Your task to perform on an android device: turn on sleep mode Image 0: 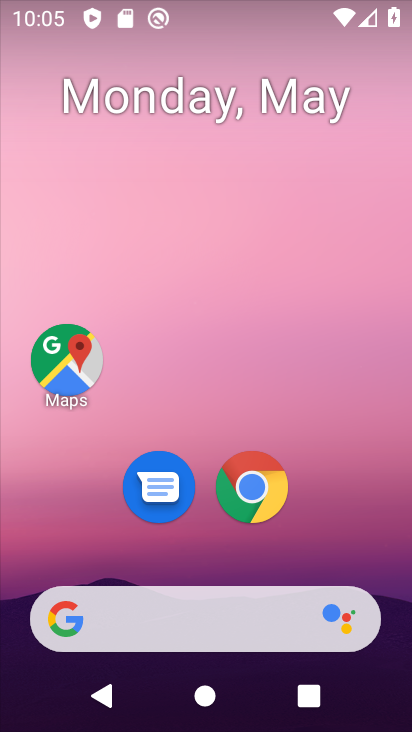
Step 0: drag from (383, 571) to (386, 216)
Your task to perform on an android device: turn on sleep mode Image 1: 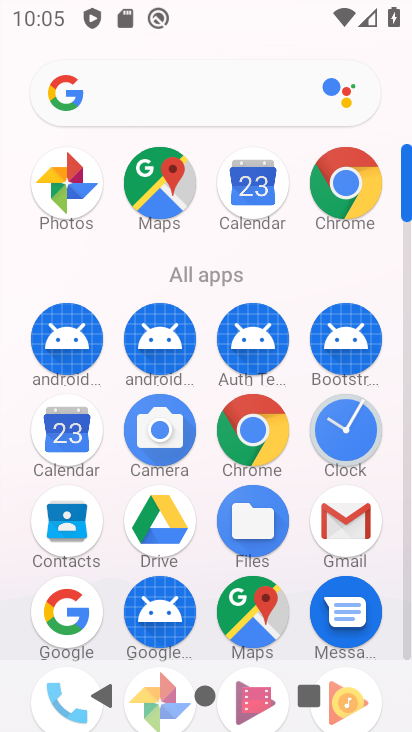
Step 1: drag from (396, 588) to (397, 488)
Your task to perform on an android device: turn on sleep mode Image 2: 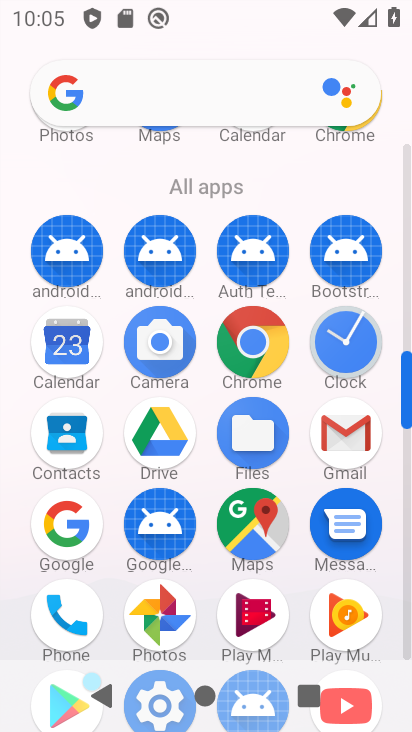
Step 2: drag from (387, 578) to (391, 483)
Your task to perform on an android device: turn on sleep mode Image 3: 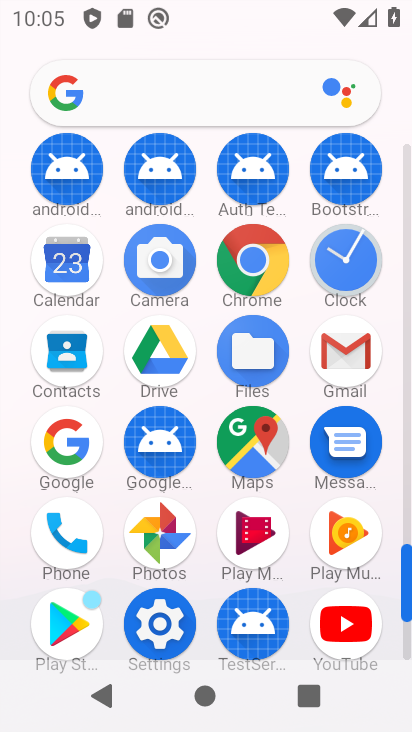
Step 3: drag from (382, 588) to (390, 483)
Your task to perform on an android device: turn on sleep mode Image 4: 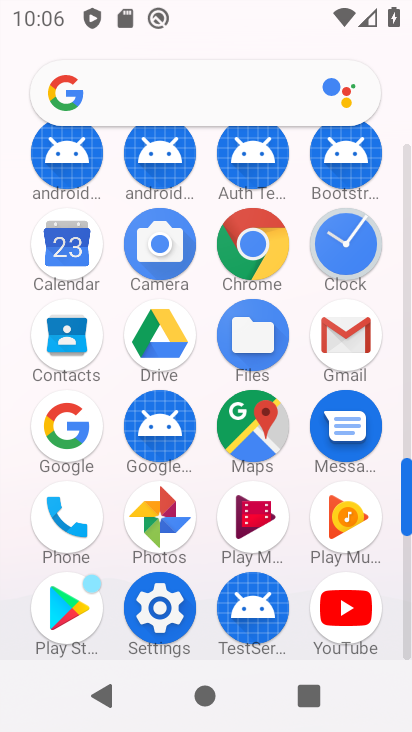
Step 4: click (153, 619)
Your task to perform on an android device: turn on sleep mode Image 5: 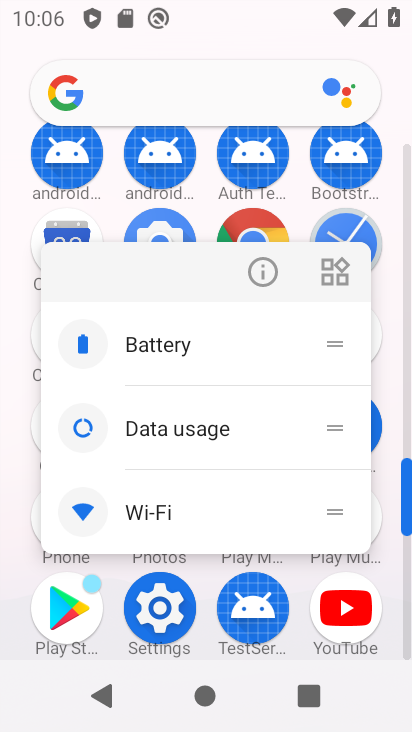
Step 5: click (153, 619)
Your task to perform on an android device: turn on sleep mode Image 6: 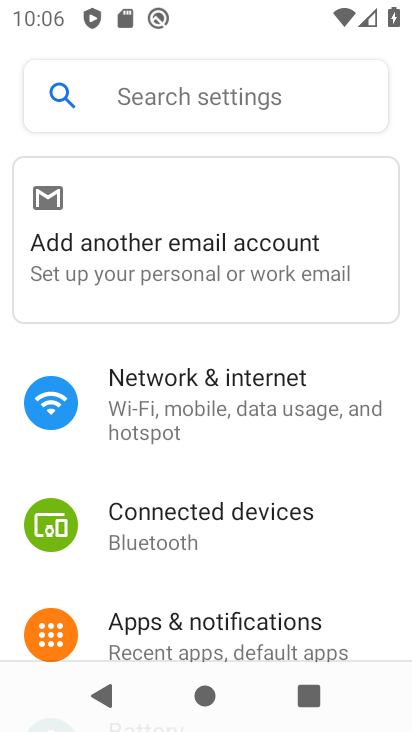
Step 6: drag from (357, 537) to (357, 455)
Your task to perform on an android device: turn on sleep mode Image 7: 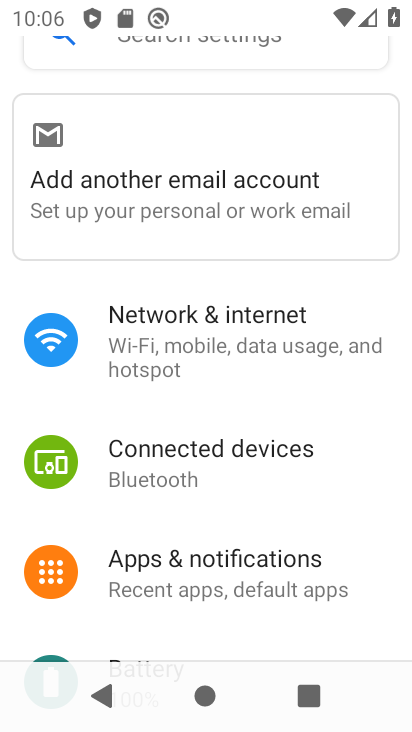
Step 7: drag from (357, 584) to (364, 491)
Your task to perform on an android device: turn on sleep mode Image 8: 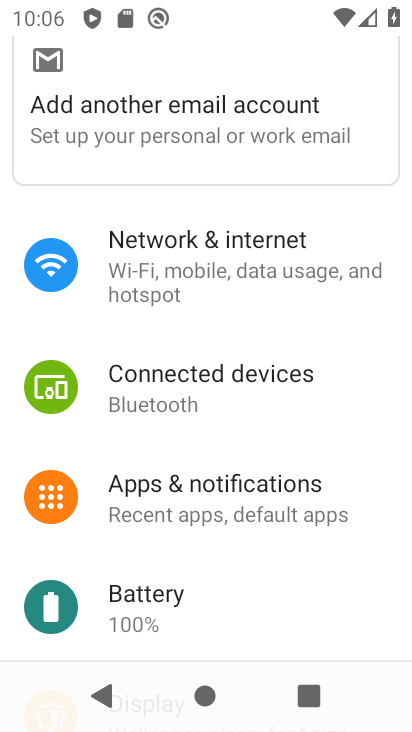
Step 8: drag from (366, 604) to (373, 520)
Your task to perform on an android device: turn on sleep mode Image 9: 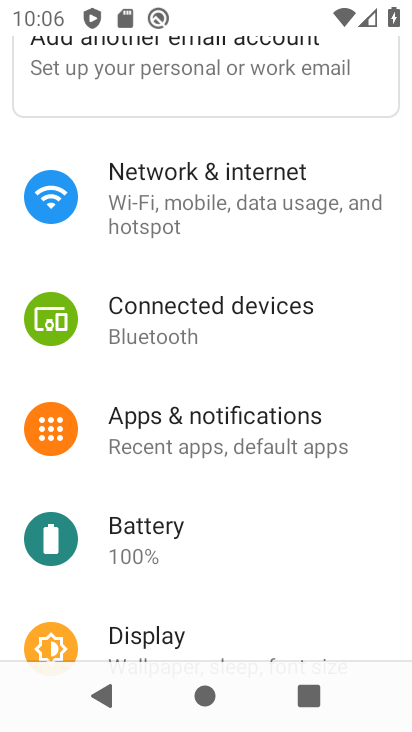
Step 9: drag from (357, 593) to (365, 514)
Your task to perform on an android device: turn on sleep mode Image 10: 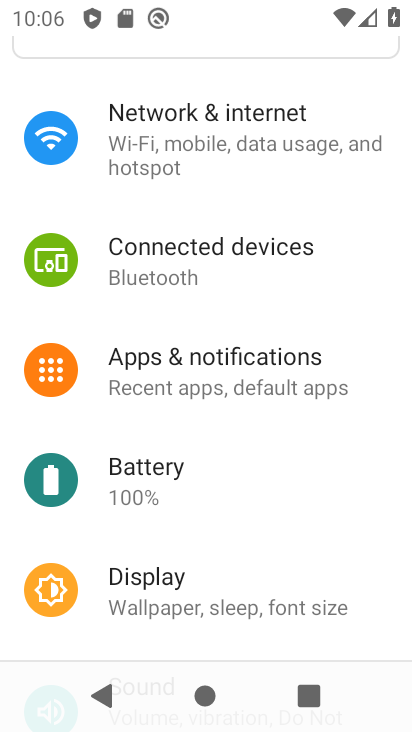
Step 10: drag from (370, 596) to (373, 505)
Your task to perform on an android device: turn on sleep mode Image 11: 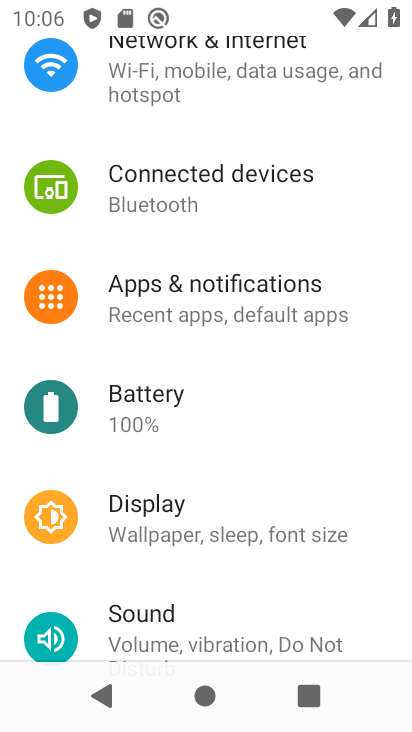
Step 11: drag from (359, 587) to (362, 502)
Your task to perform on an android device: turn on sleep mode Image 12: 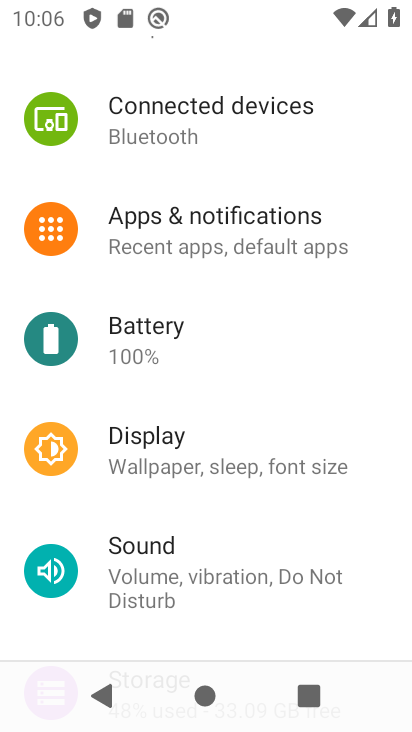
Step 12: drag from (364, 589) to (368, 503)
Your task to perform on an android device: turn on sleep mode Image 13: 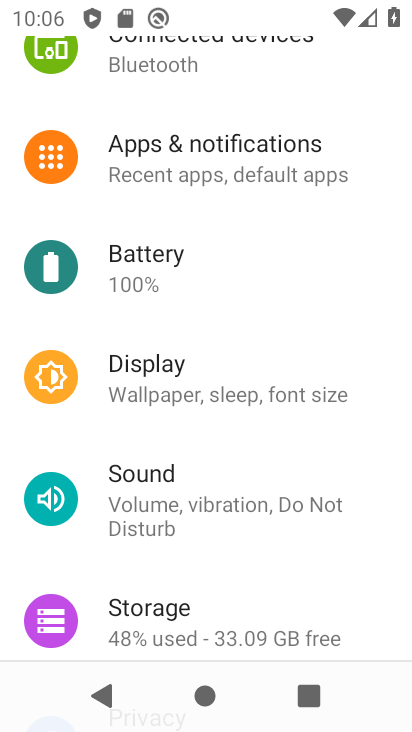
Step 13: drag from (373, 621) to (377, 526)
Your task to perform on an android device: turn on sleep mode Image 14: 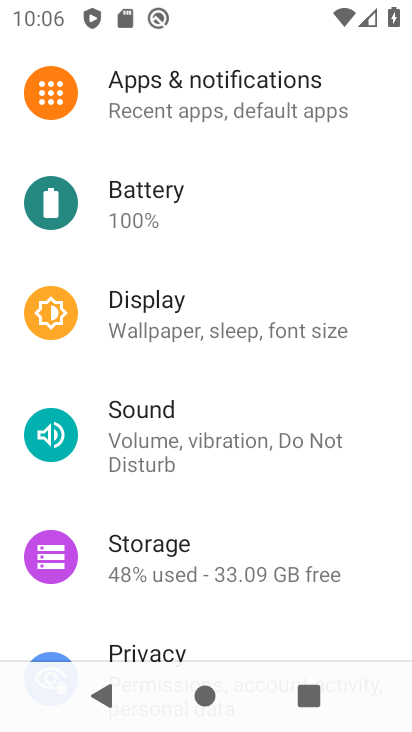
Step 14: drag from (366, 615) to (369, 544)
Your task to perform on an android device: turn on sleep mode Image 15: 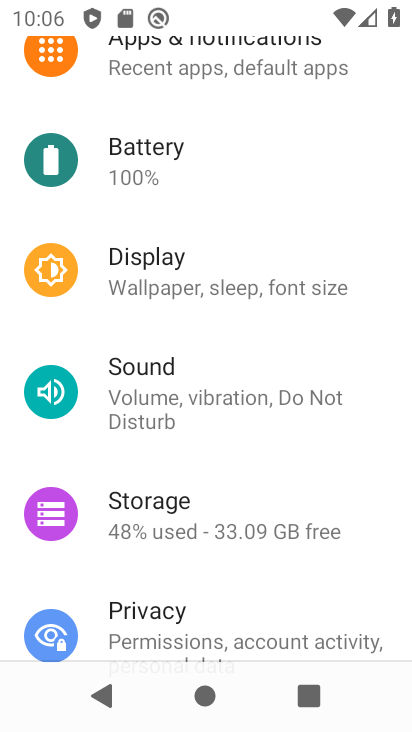
Step 15: drag from (364, 602) to (366, 511)
Your task to perform on an android device: turn on sleep mode Image 16: 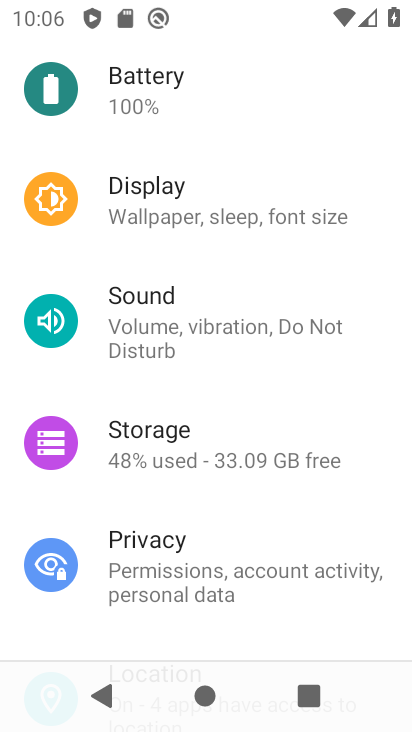
Step 16: drag from (360, 607) to (363, 532)
Your task to perform on an android device: turn on sleep mode Image 17: 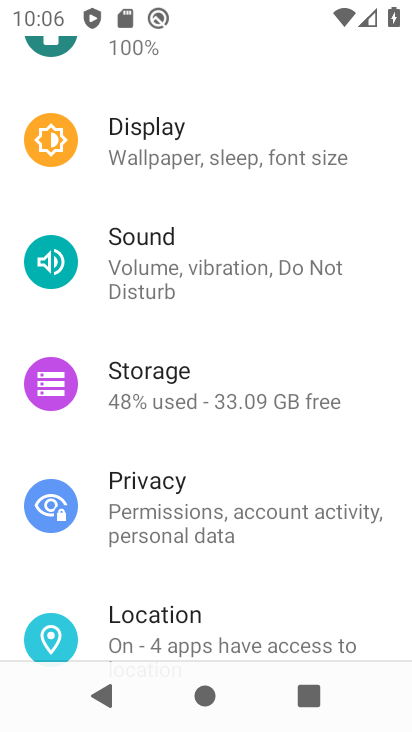
Step 17: drag from (355, 599) to (364, 509)
Your task to perform on an android device: turn on sleep mode Image 18: 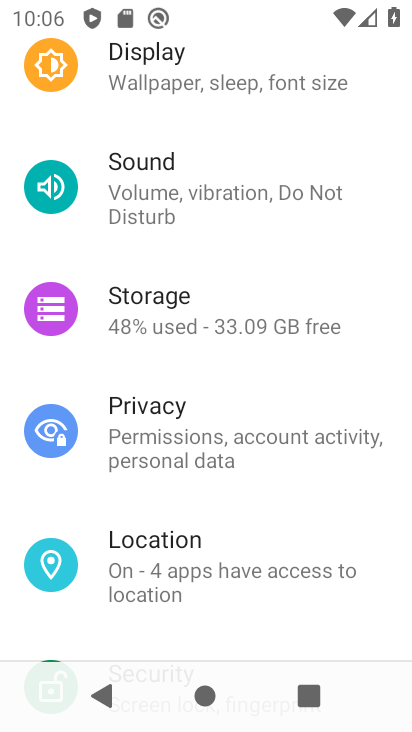
Step 18: drag from (362, 613) to (365, 525)
Your task to perform on an android device: turn on sleep mode Image 19: 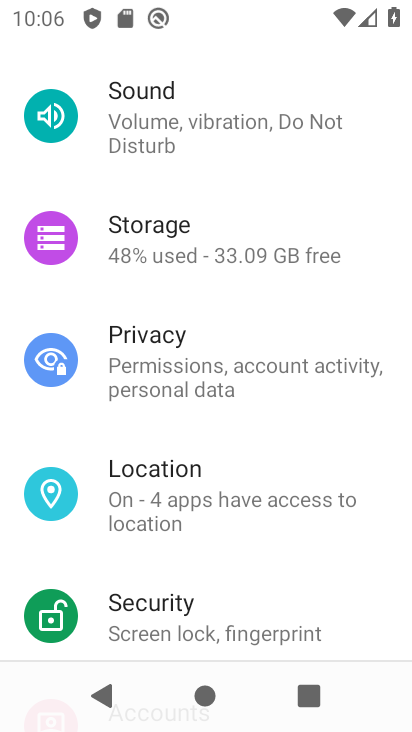
Step 19: drag from (361, 600) to (363, 529)
Your task to perform on an android device: turn on sleep mode Image 20: 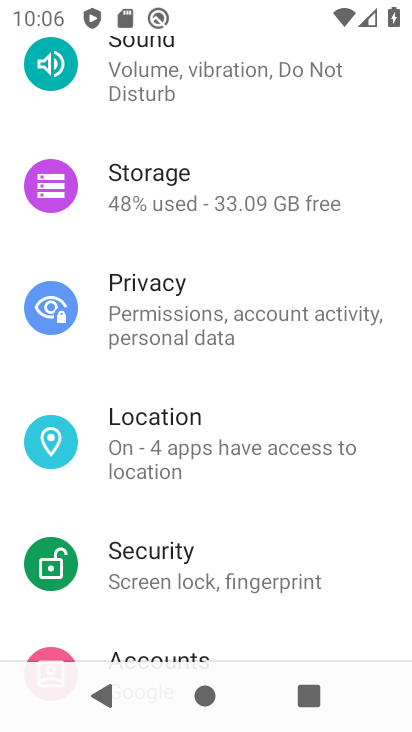
Step 20: drag from (360, 631) to (366, 539)
Your task to perform on an android device: turn on sleep mode Image 21: 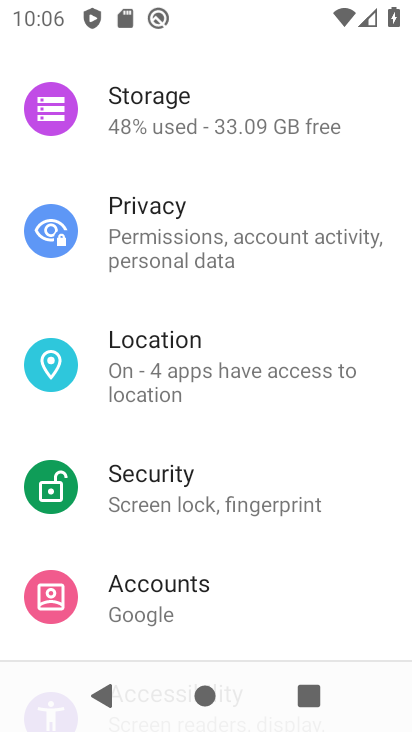
Step 21: drag from (356, 623) to (361, 525)
Your task to perform on an android device: turn on sleep mode Image 22: 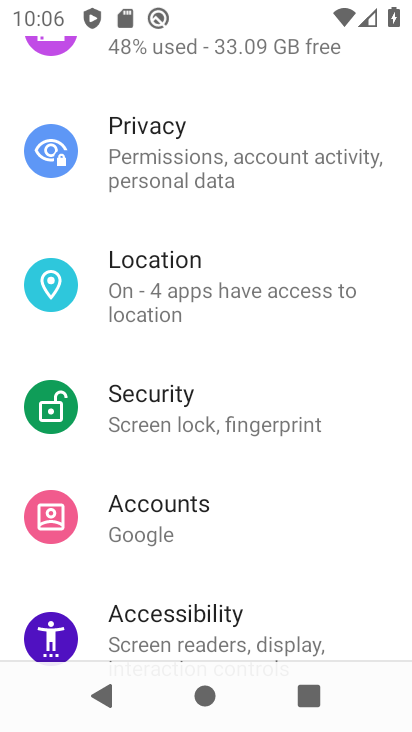
Step 22: drag from (365, 620) to (367, 535)
Your task to perform on an android device: turn on sleep mode Image 23: 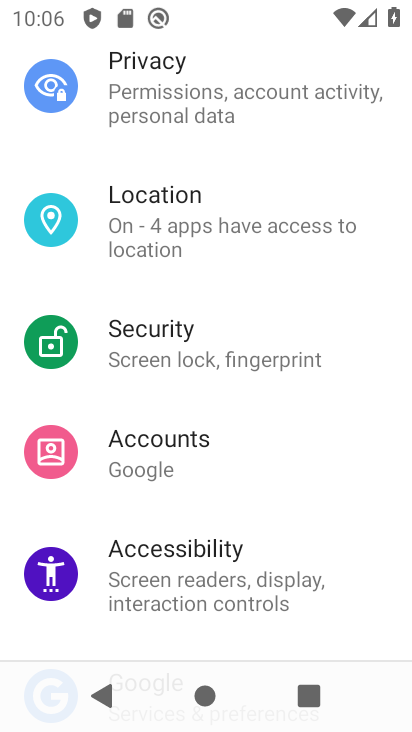
Step 23: drag from (368, 619) to (372, 540)
Your task to perform on an android device: turn on sleep mode Image 24: 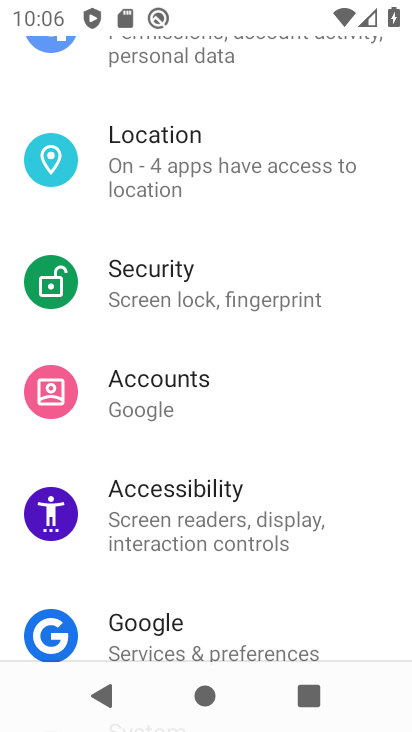
Step 24: drag from (357, 625) to (365, 511)
Your task to perform on an android device: turn on sleep mode Image 25: 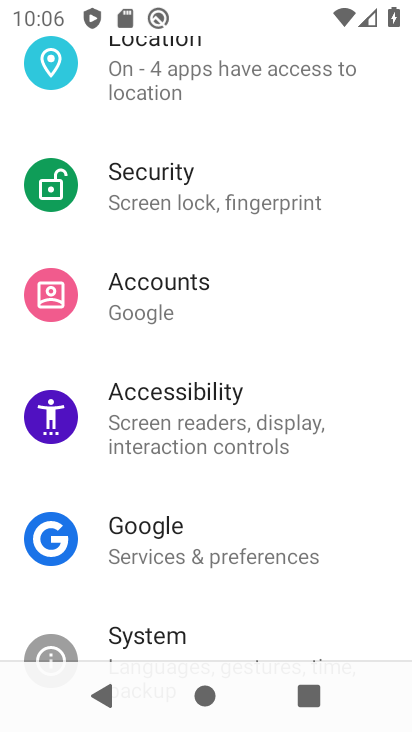
Step 25: drag from (358, 621) to (361, 523)
Your task to perform on an android device: turn on sleep mode Image 26: 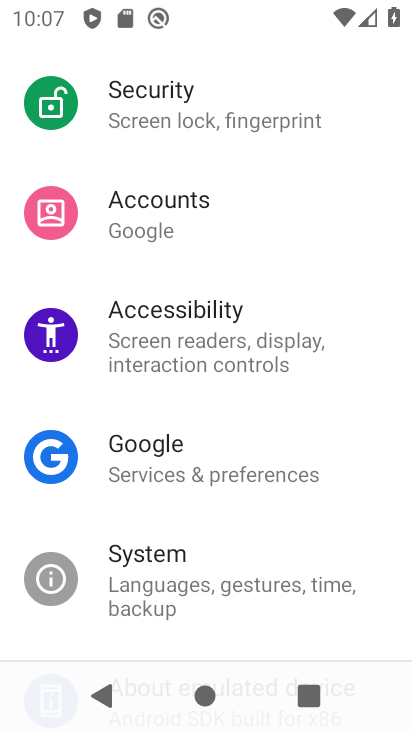
Step 26: drag from (353, 627) to (355, 497)
Your task to perform on an android device: turn on sleep mode Image 27: 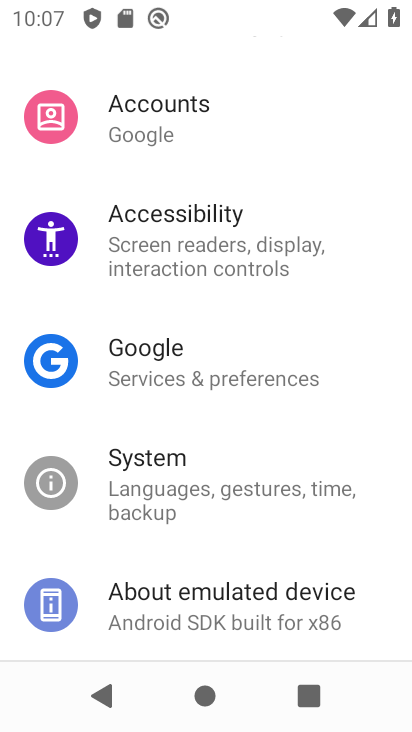
Step 27: drag from (372, 622) to (374, 467)
Your task to perform on an android device: turn on sleep mode Image 28: 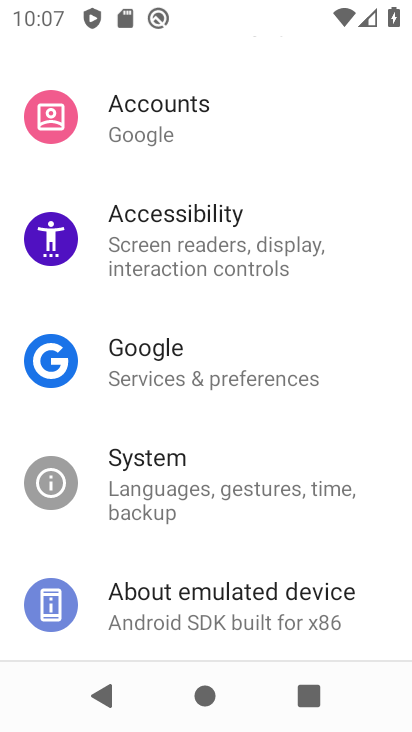
Step 28: drag from (382, 395) to (386, 507)
Your task to perform on an android device: turn on sleep mode Image 29: 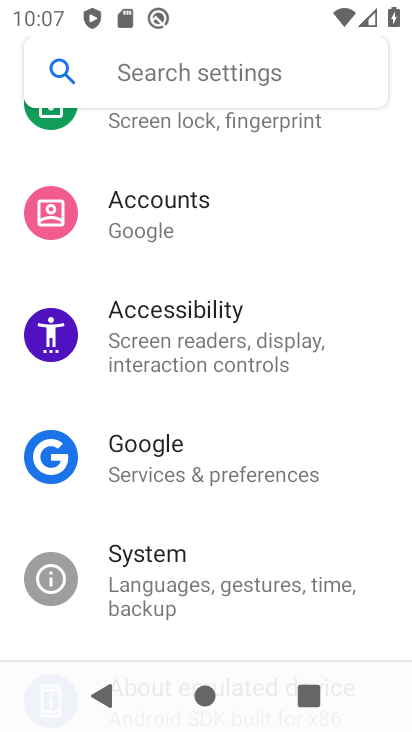
Step 29: drag from (374, 419) to (374, 524)
Your task to perform on an android device: turn on sleep mode Image 30: 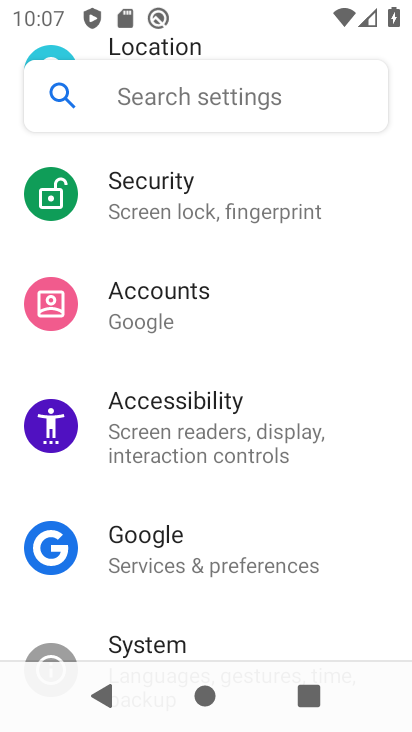
Step 30: drag from (371, 404) to (371, 484)
Your task to perform on an android device: turn on sleep mode Image 31: 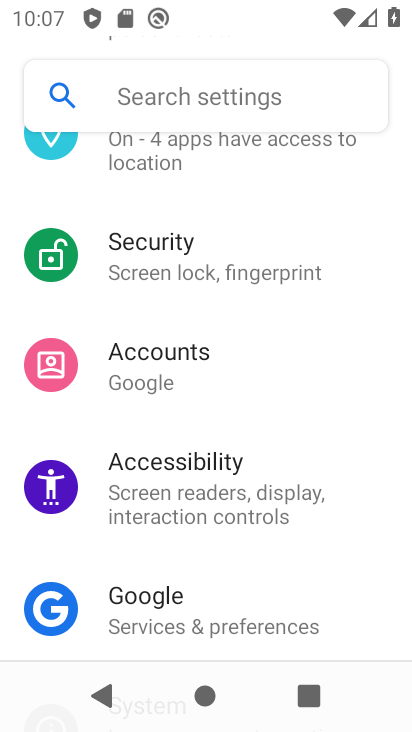
Step 31: drag from (361, 401) to (367, 490)
Your task to perform on an android device: turn on sleep mode Image 32: 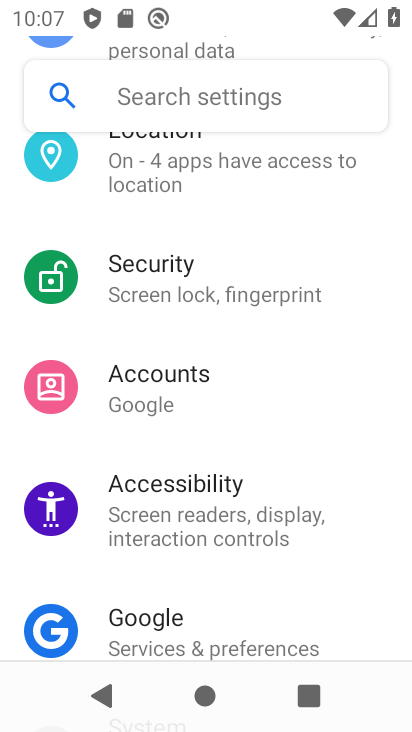
Step 32: drag from (362, 362) to (365, 475)
Your task to perform on an android device: turn on sleep mode Image 33: 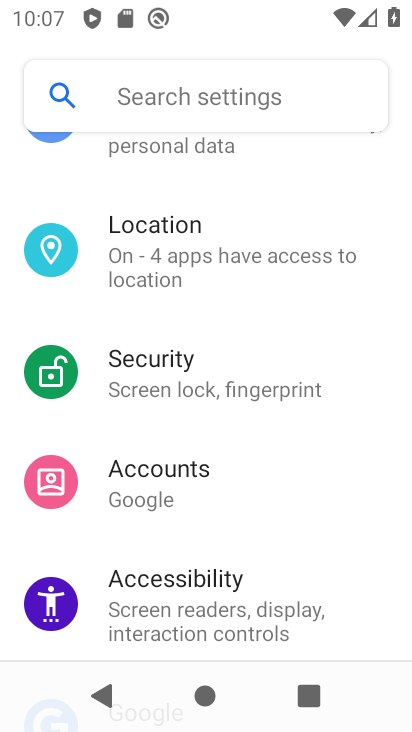
Step 33: drag from (357, 338) to (355, 450)
Your task to perform on an android device: turn on sleep mode Image 34: 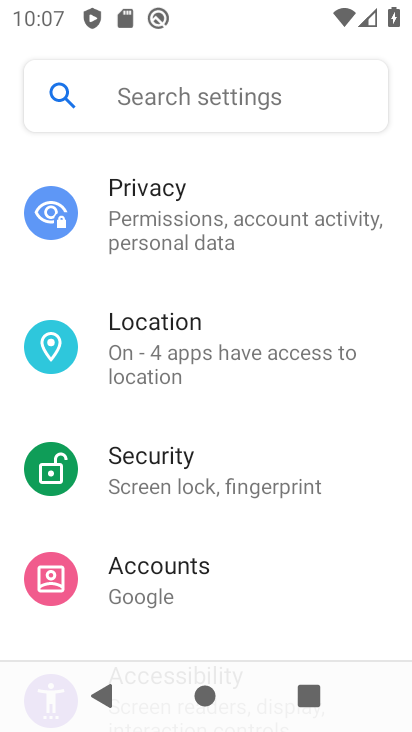
Step 34: drag from (358, 344) to (356, 467)
Your task to perform on an android device: turn on sleep mode Image 35: 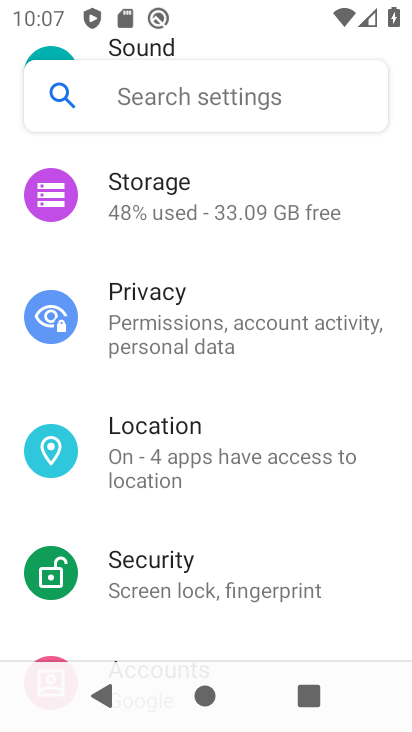
Step 35: drag from (361, 290) to (362, 434)
Your task to perform on an android device: turn on sleep mode Image 36: 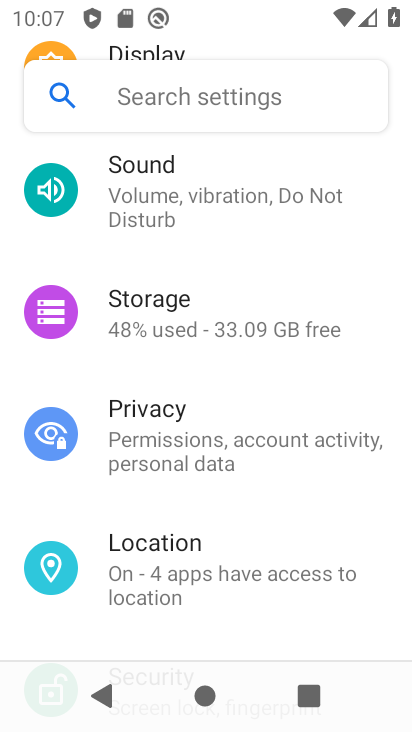
Step 36: drag from (368, 278) to (371, 413)
Your task to perform on an android device: turn on sleep mode Image 37: 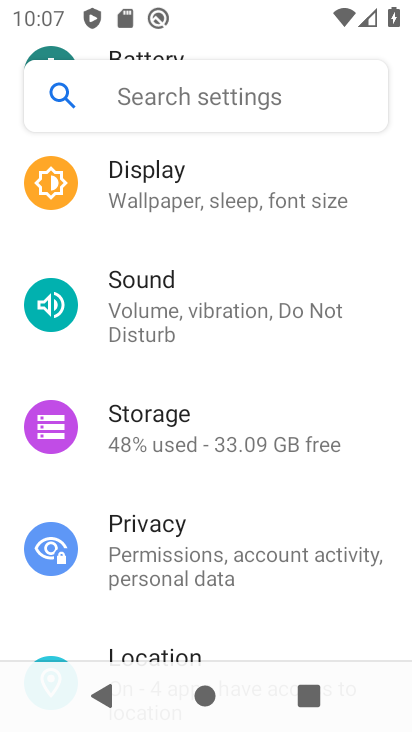
Step 37: drag from (360, 254) to (365, 386)
Your task to perform on an android device: turn on sleep mode Image 38: 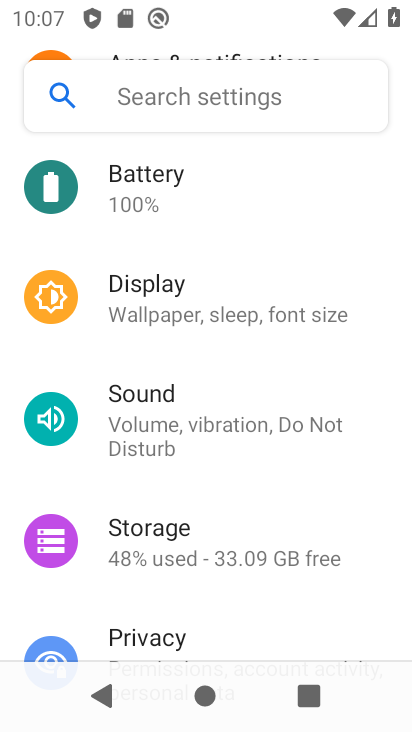
Step 38: drag from (354, 236) to (355, 342)
Your task to perform on an android device: turn on sleep mode Image 39: 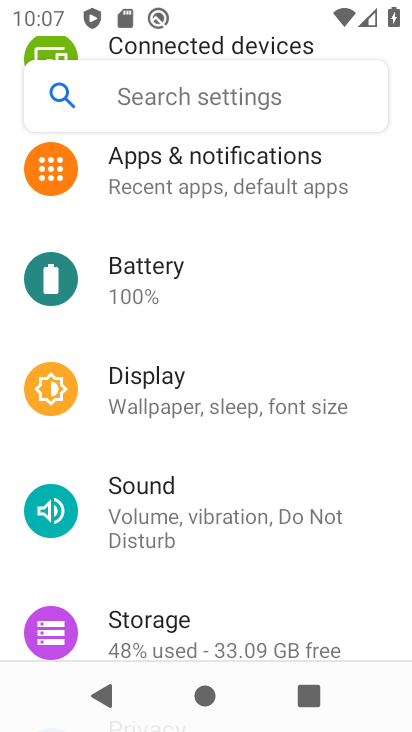
Step 39: drag from (358, 242) to (360, 335)
Your task to perform on an android device: turn on sleep mode Image 40: 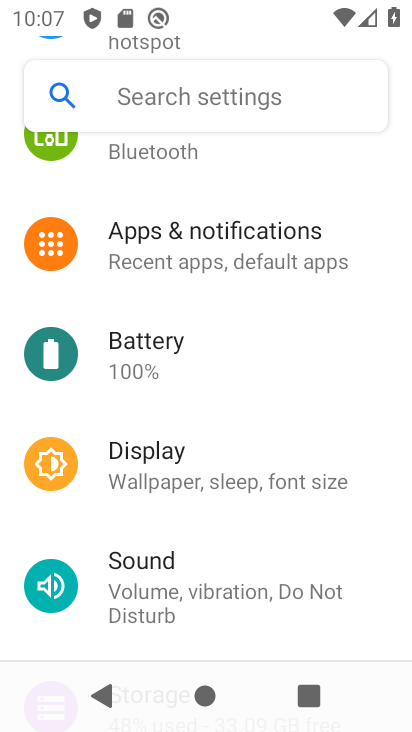
Step 40: click (297, 485)
Your task to perform on an android device: turn on sleep mode Image 41: 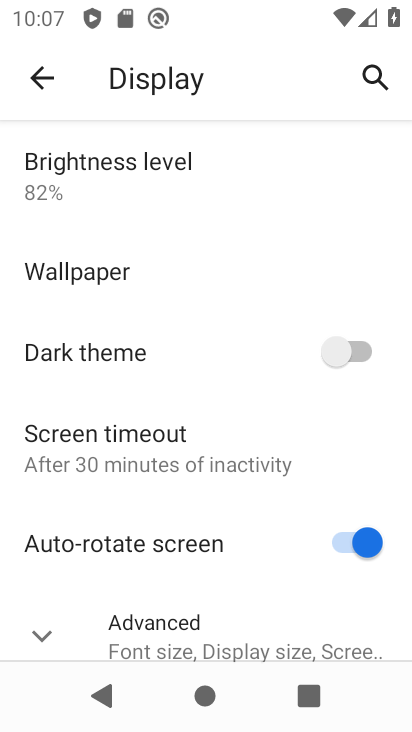
Step 41: task complete